Your task to perform on an android device: turn off location Image 0: 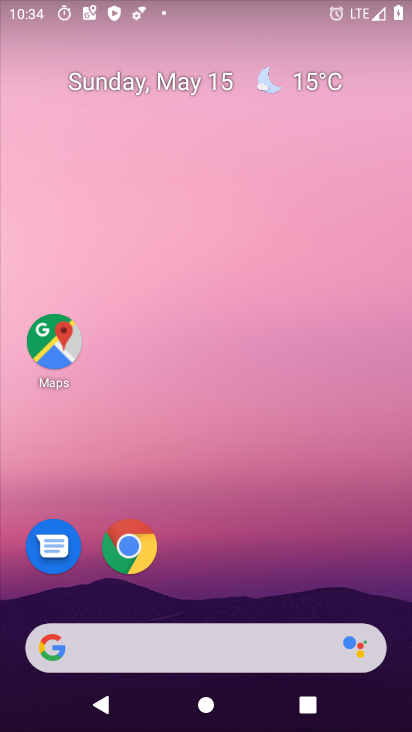
Step 0: drag from (277, 304) to (271, 170)
Your task to perform on an android device: turn off location Image 1: 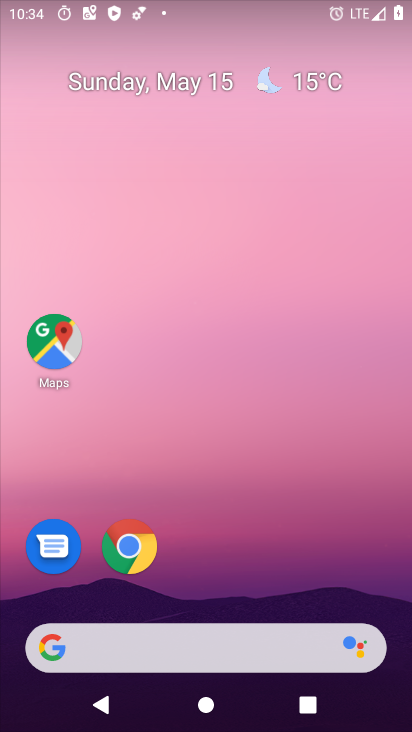
Step 1: drag from (261, 617) to (188, 108)
Your task to perform on an android device: turn off location Image 2: 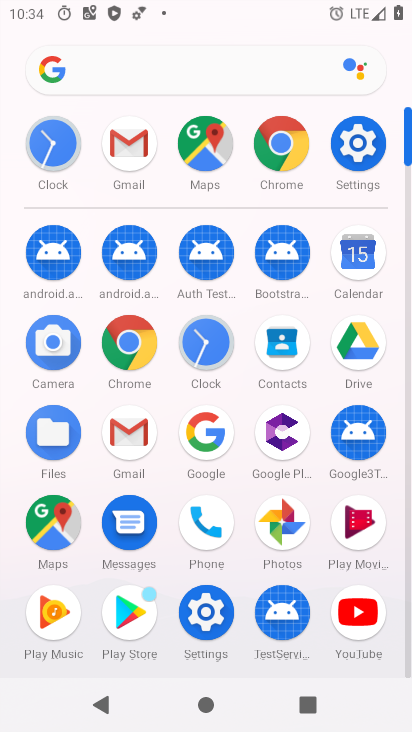
Step 2: click (364, 150)
Your task to perform on an android device: turn off location Image 3: 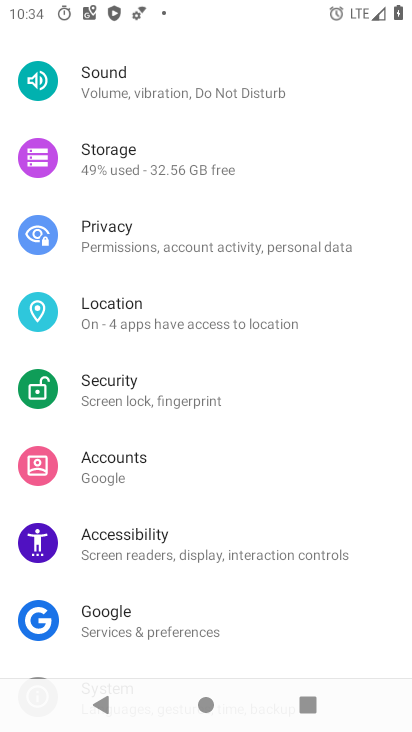
Step 3: click (132, 323)
Your task to perform on an android device: turn off location Image 4: 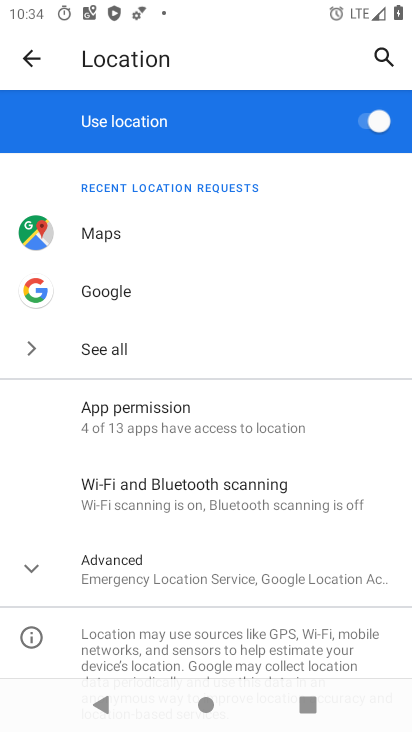
Step 4: click (379, 121)
Your task to perform on an android device: turn off location Image 5: 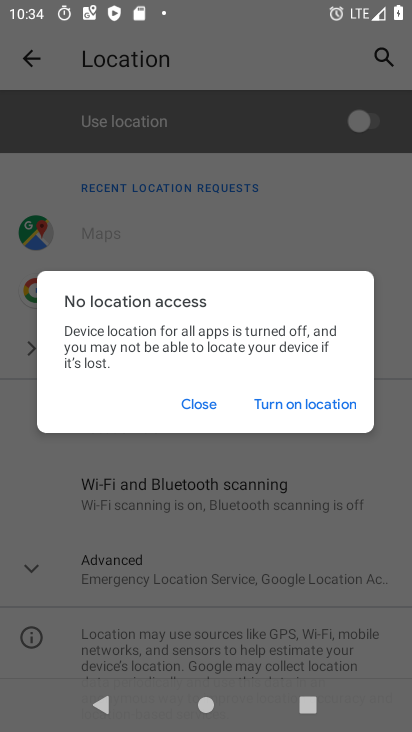
Step 5: task complete